Your task to perform on an android device: Go to Maps Image 0: 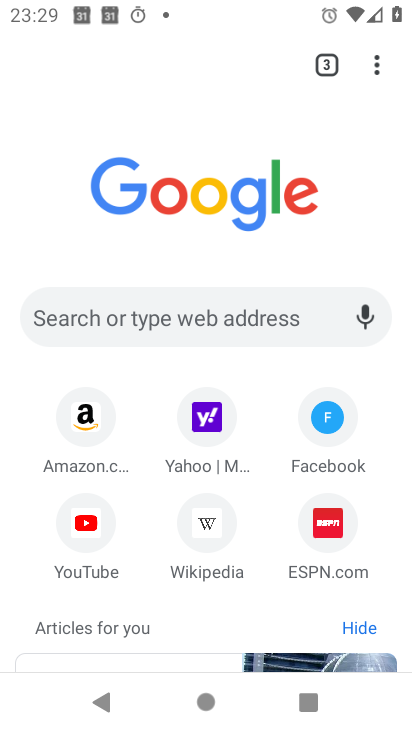
Step 0: press home button
Your task to perform on an android device: Go to Maps Image 1: 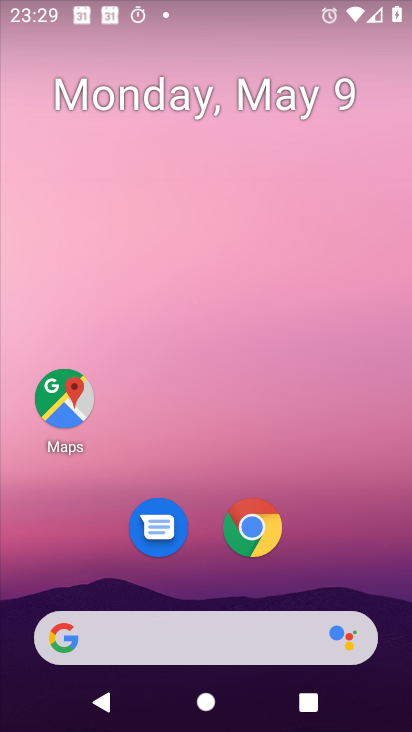
Step 1: click (67, 403)
Your task to perform on an android device: Go to Maps Image 2: 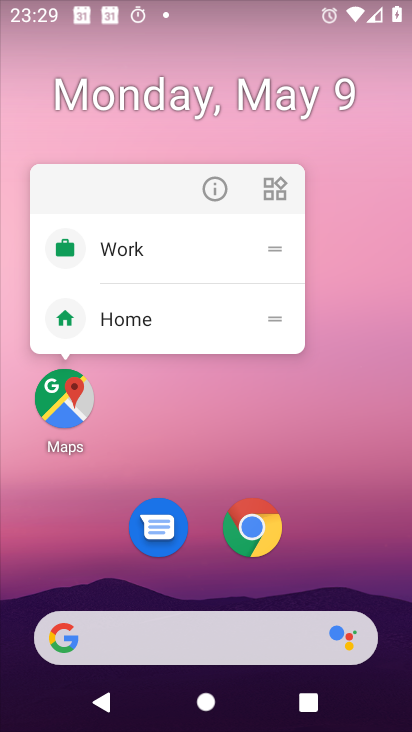
Step 2: click (61, 405)
Your task to perform on an android device: Go to Maps Image 3: 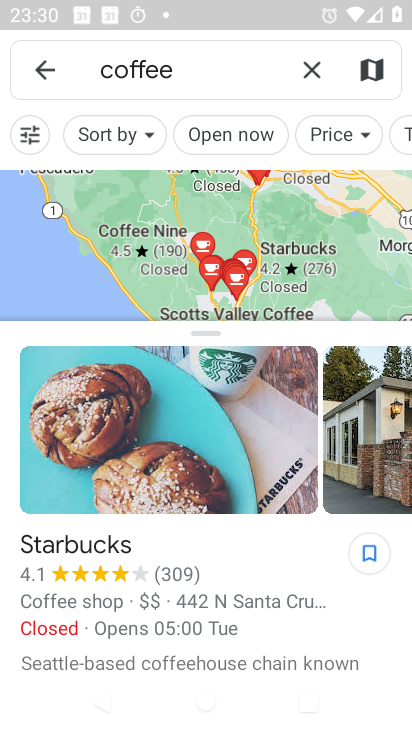
Step 3: task complete